Your task to perform on an android device: turn off javascript in the chrome app Image 0: 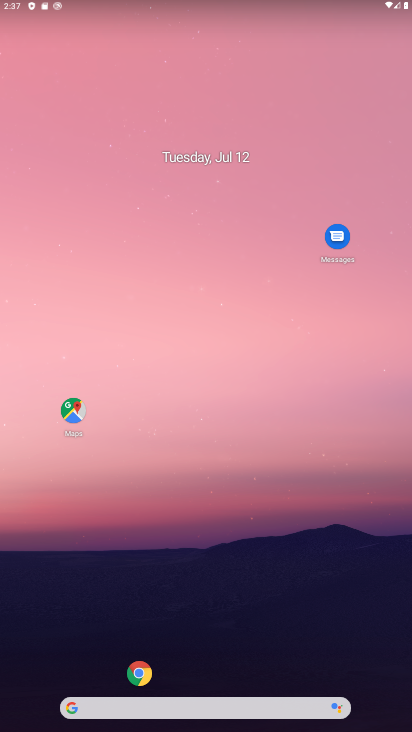
Step 0: click (132, 662)
Your task to perform on an android device: turn off javascript in the chrome app Image 1: 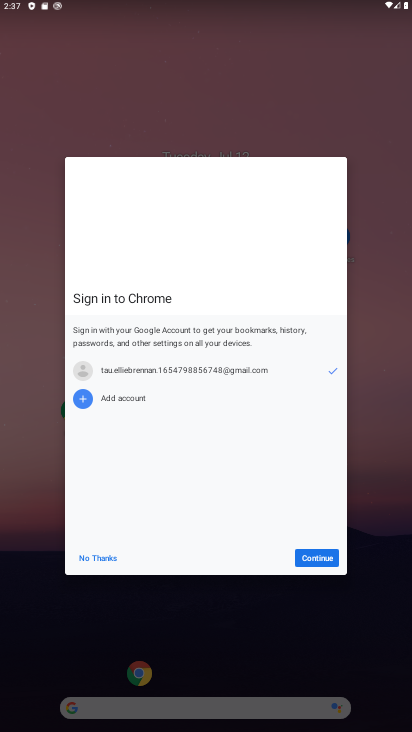
Step 1: click (315, 554)
Your task to perform on an android device: turn off javascript in the chrome app Image 2: 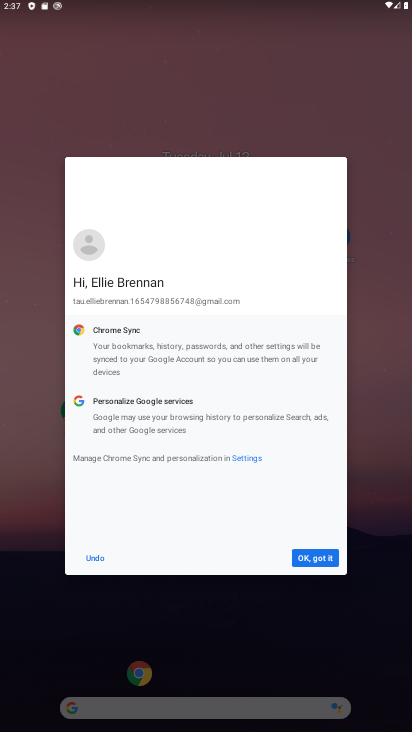
Step 2: click (321, 546)
Your task to perform on an android device: turn off javascript in the chrome app Image 3: 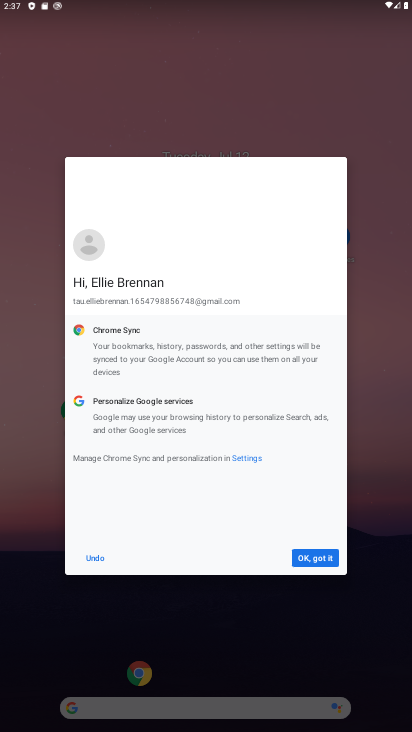
Step 3: click (312, 559)
Your task to perform on an android device: turn off javascript in the chrome app Image 4: 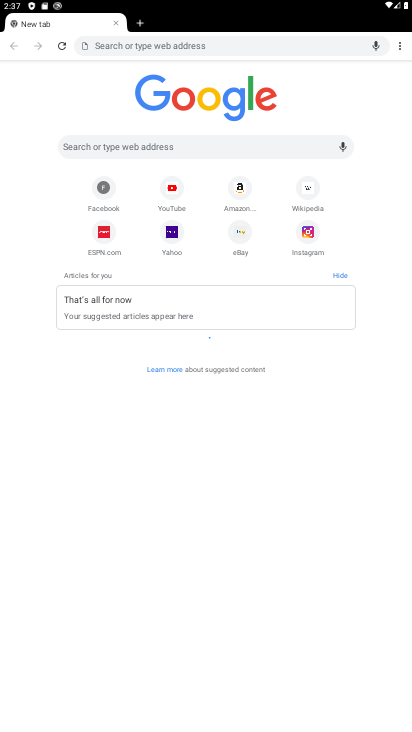
Step 4: click (397, 46)
Your task to perform on an android device: turn off javascript in the chrome app Image 5: 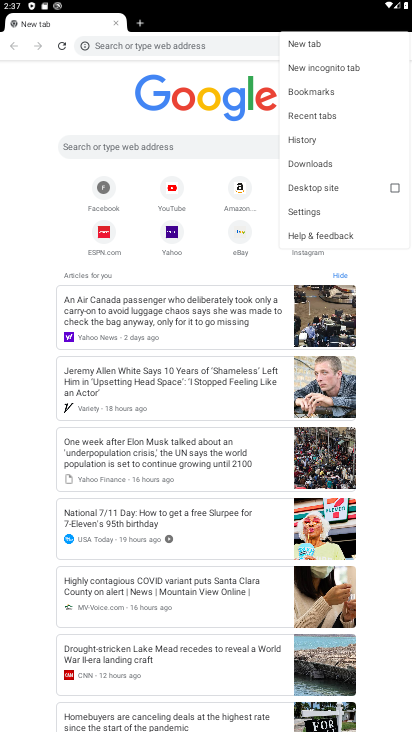
Step 5: click (302, 213)
Your task to perform on an android device: turn off javascript in the chrome app Image 6: 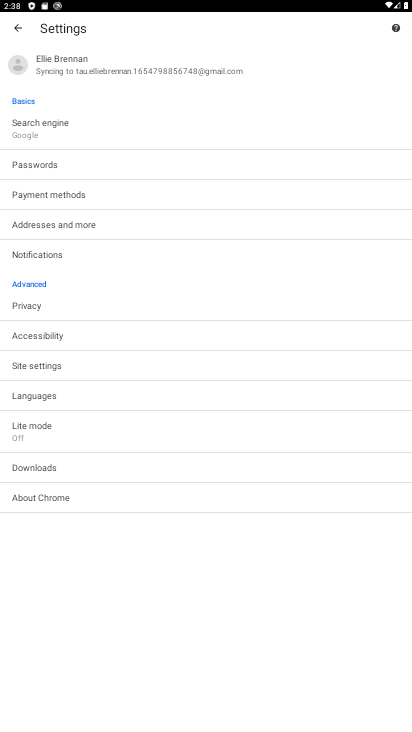
Step 6: click (34, 364)
Your task to perform on an android device: turn off javascript in the chrome app Image 7: 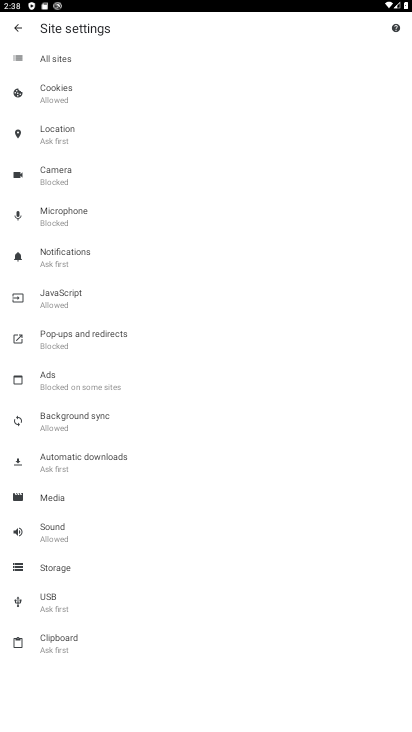
Step 7: click (57, 296)
Your task to perform on an android device: turn off javascript in the chrome app Image 8: 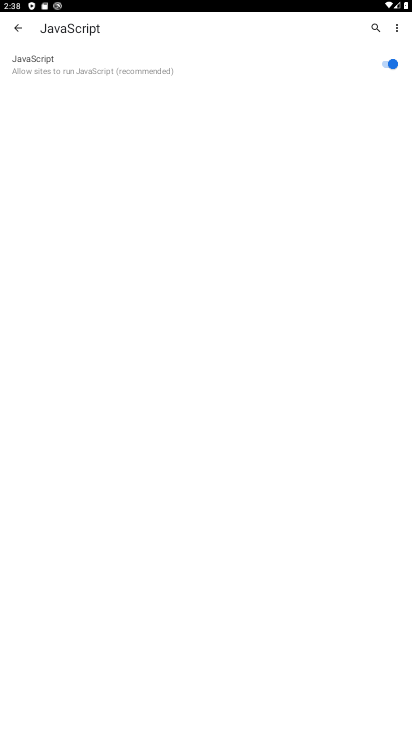
Step 8: click (392, 59)
Your task to perform on an android device: turn off javascript in the chrome app Image 9: 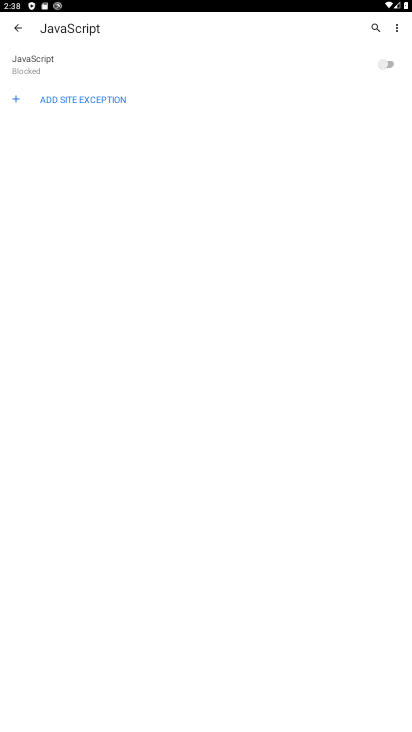
Step 9: task complete